Your task to perform on an android device: Show the shopping cart on ebay.com. Search for "usb-b" on ebay.com, select the first entry, add it to the cart, then select checkout. Image 0: 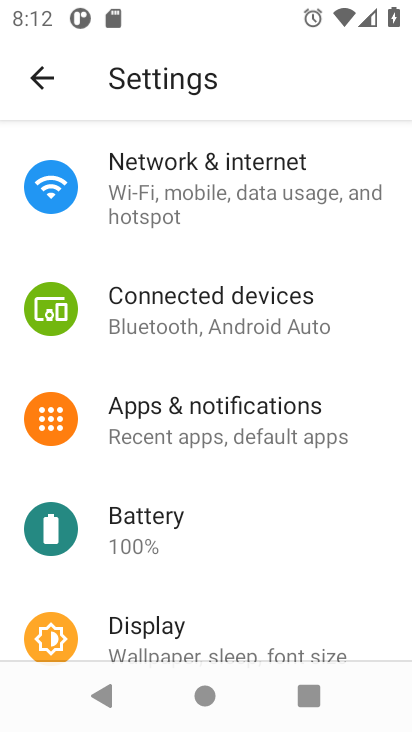
Step 0: press home button
Your task to perform on an android device: Show the shopping cart on ebay.com. Search for "usb-b" on ebay.com, select the first entry, add it to the cart, then select checkout. Image 1: 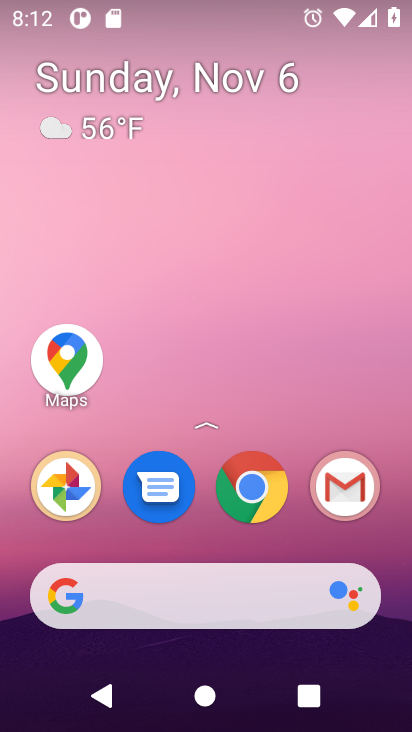
Step 1: click (259, 501)
Your task to perform on an android device: Show the shopping cart on ebay.com. Search for "usb-b" on ebay.com, select the first entry, add it to the cart, then select checkout. Image 2: 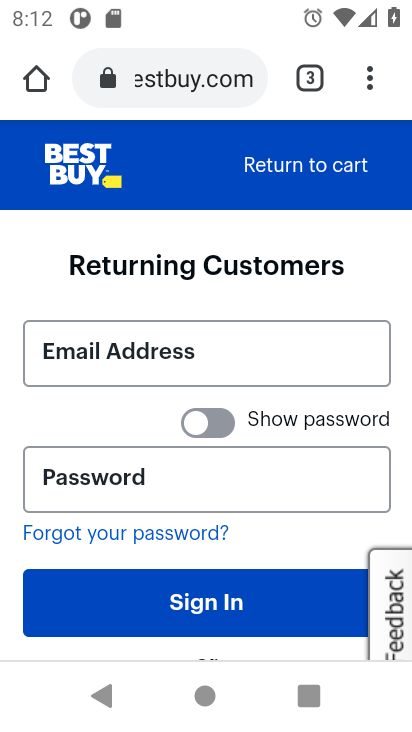
Step 2: click (164, 80)
Your task to perform on an android device: Show the shopping cart on ebay.com. Search for "usb-b" on ebay.com, select the first entry, add it to the cart, then select checkout. Image 3: 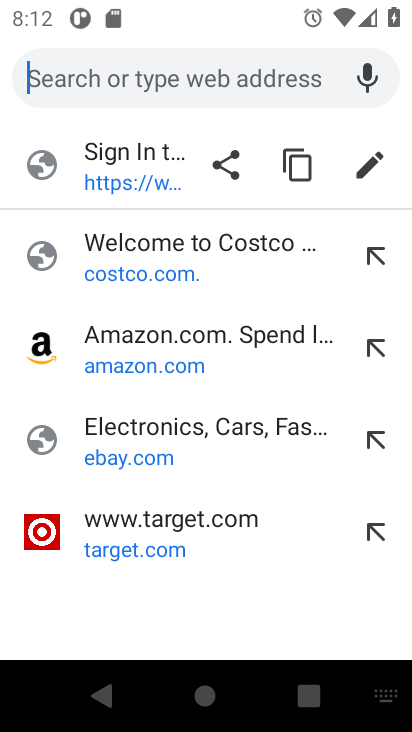
Step 3: click (99, 452)
Your task to perform on an android device: Show the shopping cart on ebay.com. Search for "usb-b" on ebay.com, select the first entry, add it to the cart, then select checkout. Image 4: 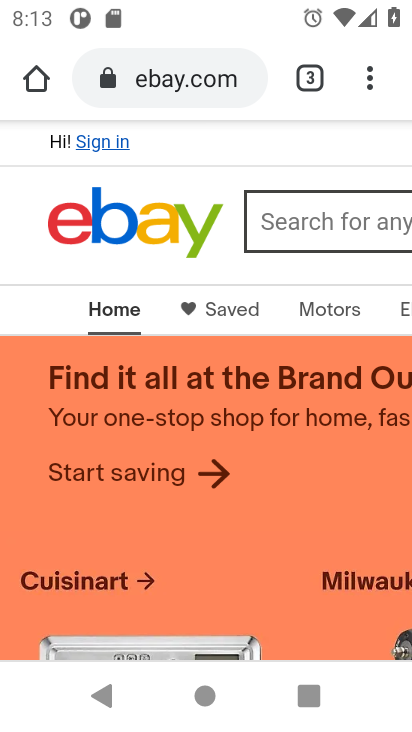
Step 4: click (307, 238)
Your task to perform on an android device: Show the shopping cart on ebay.com. Search for "usb-b" on ebay.com, select the first entry, add it to the cart, then select checkout. Image 5: 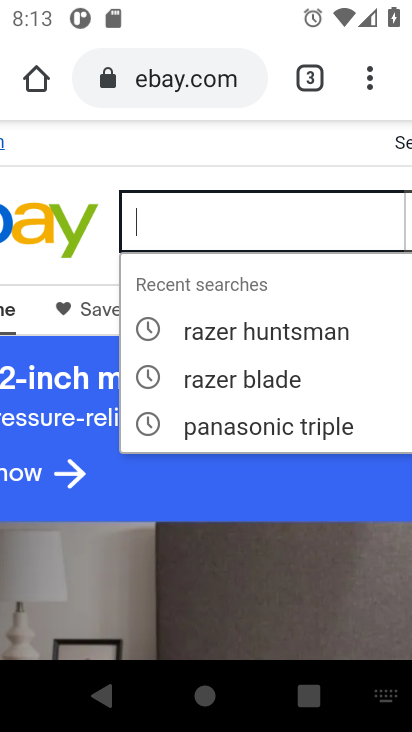
Step 5: click (331, 158)
Your task to perform on an android device: Show the shopping cart on ebay.com. Search for "usb-b" on ebay.com, select the first entry, add it to the cart, then select checkout. Image 6: 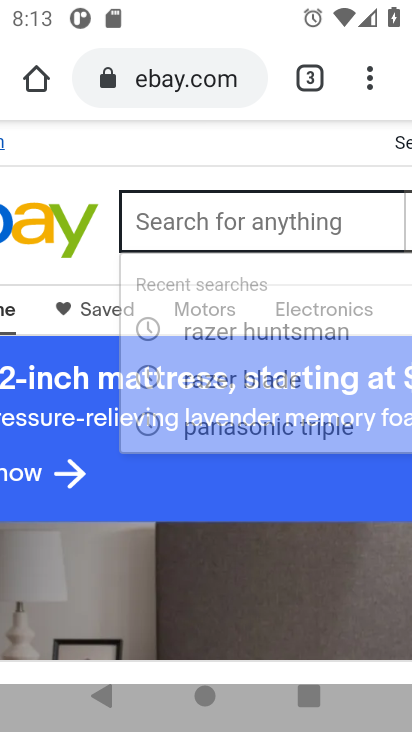
Step 6: drag from (331, 158) to (11, 134)
Your task to perform on an android device: Show the shopping cart on ebay.com. Search for "usb-b" on ebay.com, select the first entry, add it to the cart, then select checkout. Image 7: 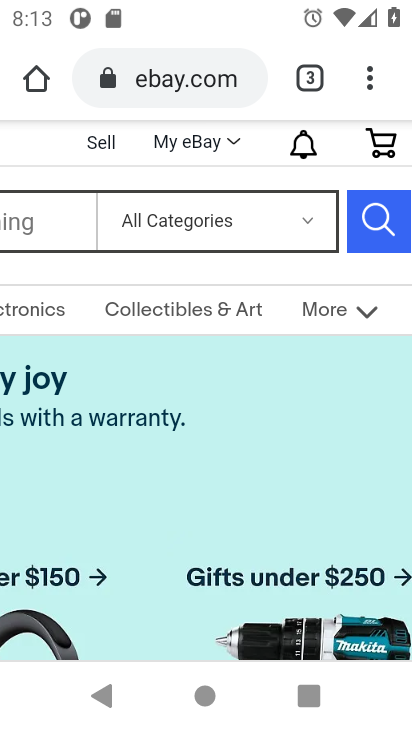
Step 7: click (377, 150)
Your task to perform on an android device: Show the shopping cart on ebay.com. Search for "usb-b" on ebay.com, select the first entry, add it to the cart, then select checkout. Image 8: 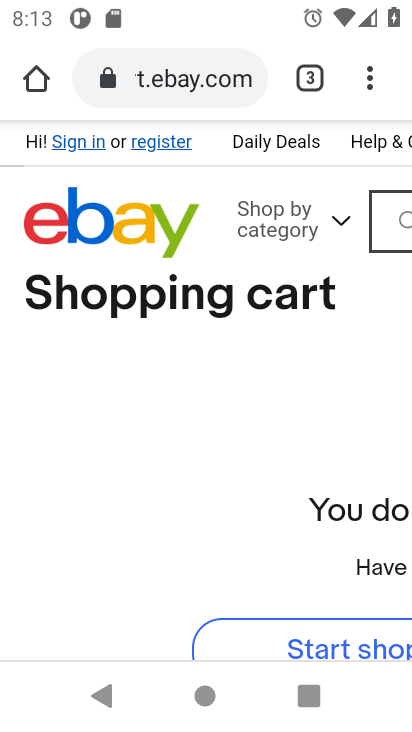
Step 8: drag from (264, 384) to (55, 400)
Your task to perform on an android device: Show the shopping cart on ebay.com. Search for "usb-b" on ebay.com, select the first entry, add it to the cart, then select checkout. Image 9: 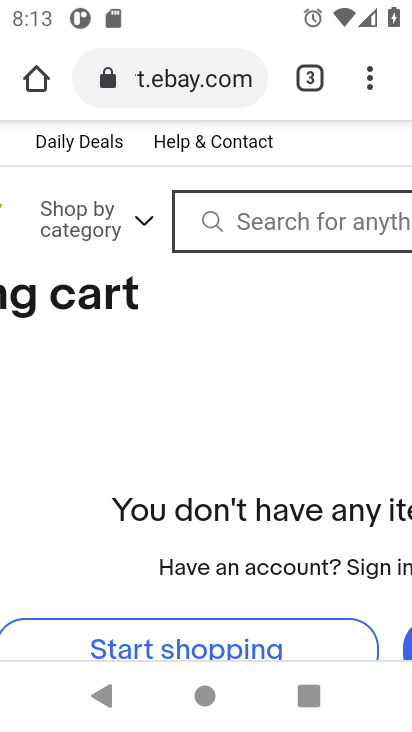
Step 9: drag from (403, 349) to (40, 448)
Your task to perform on an android device: Show the shopping cart on ebay.com. Search for "usb-b" on ebay.com, select the first entry, add it to the cart, then select checkout. Image 10: 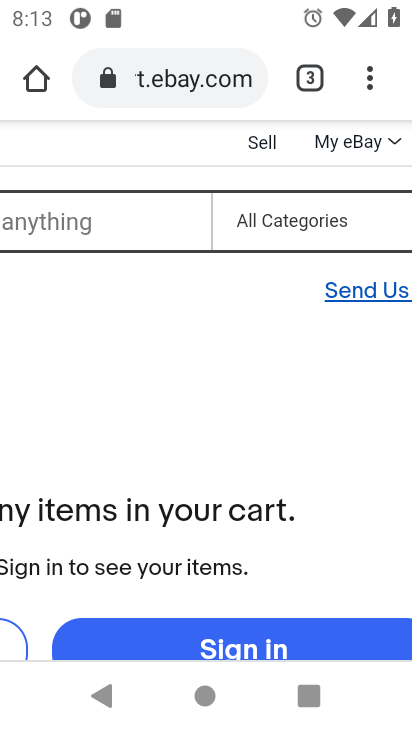
Step 10: click (111, 224)
Your task to perform on an android device: Show the shopping cart on ebay.com. Search for "usb-b" on ebay.com, select the first entry, add it to the cart, then select checkout. Image 11: 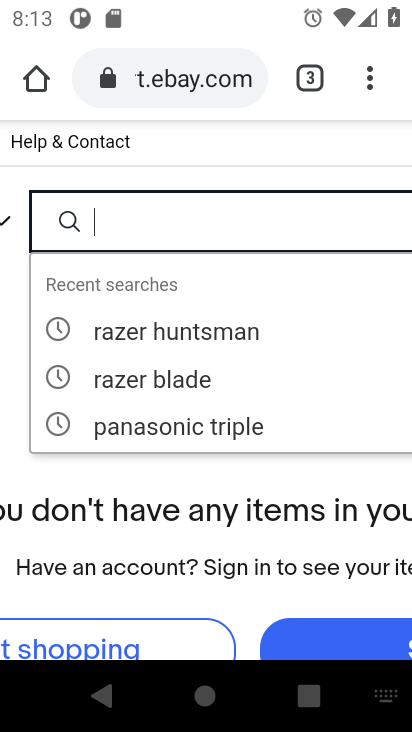
Step 11: type "usb-b"
Your task to perform on an android device: Show the shopping cart on ebay.com. Search for "usb-b" on ebay.com, select the first entry, add it to the cart, then select checkout. Image 12: 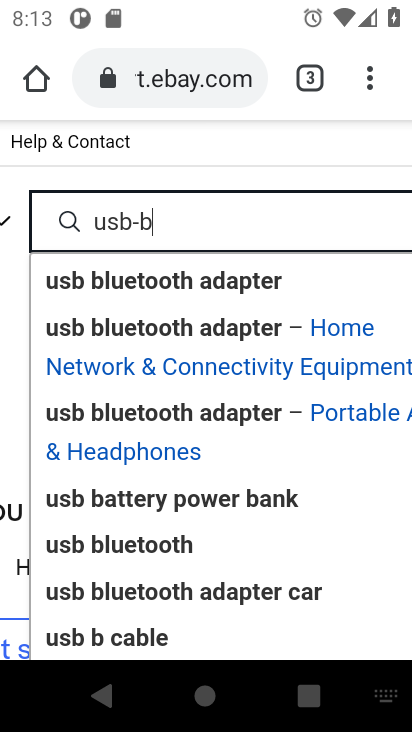
Step 12: drag from (335, 175) to (74, 195)
Your task to perform on an android device: Show the shopping cart on ebay.com. Search for "usb-b" on ebay.com, select the first entry, add it to the cart, then select checkout. Image 13: 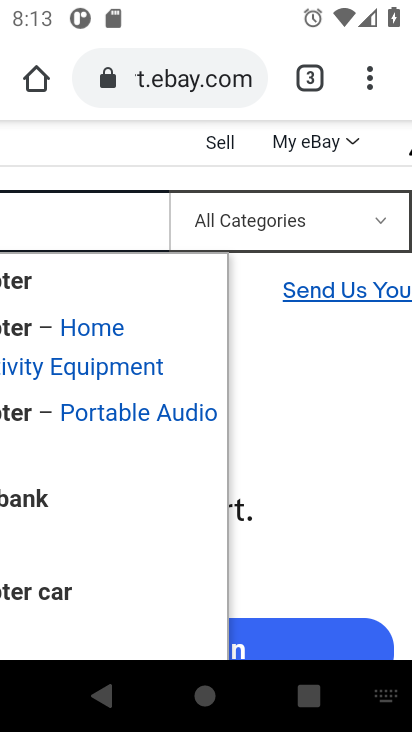
Step 13: click (388, 217)
Your task to perform on an android device: Show the shopping cart on ebay.com. Search for "usb-b" on ebay.com, select the first entry, add it to the cart, then select checkout. Image 14: 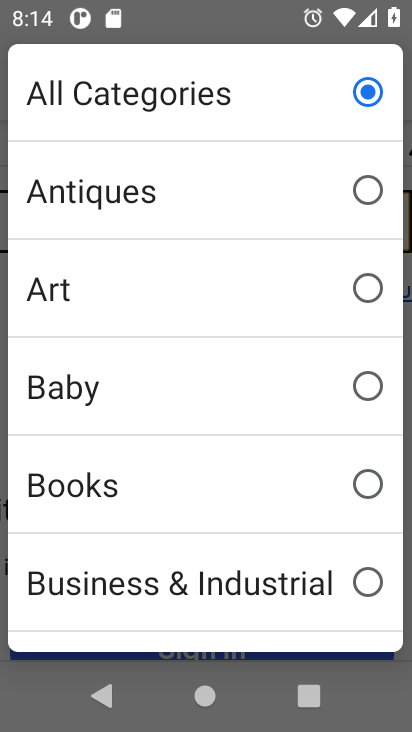
Step 14: click (175, 13)
Your task to perform on an android device: Show the shopping cart on ebay.com. Search for "usb-b" on ebay.com, select the first entry, add it to the cart, then select checkout. Image 15: 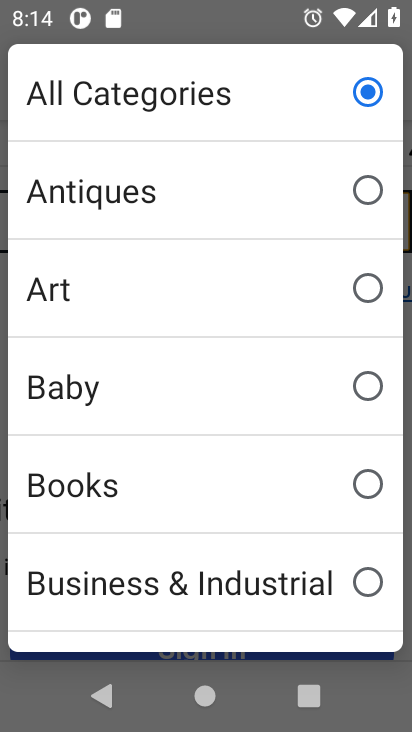
Step 15: click (247, 37)
Your task to perform on an android device: Show the shopping cart on ebay.com. Search for "usb-b" on ebay.com, select the first entry, add it to the cart, then select checkout. Image 16: 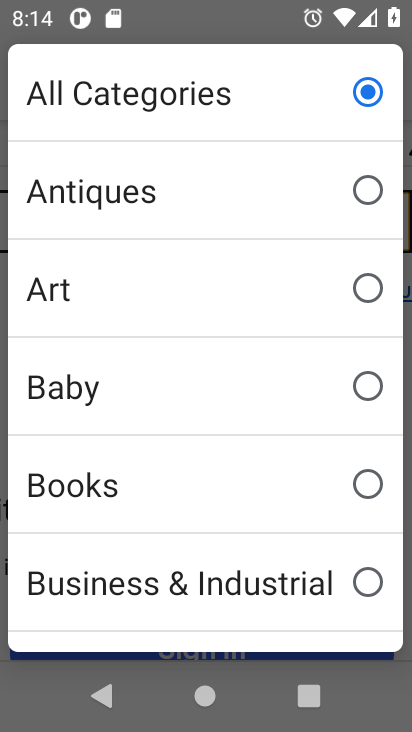
Step 16: press back button
Your task to perform on an android device: Show the shopping cart on ebay.com. Search for "usb-b" on ebay.com, select the first entry, add it to the cart, then select checkout. Image 17: 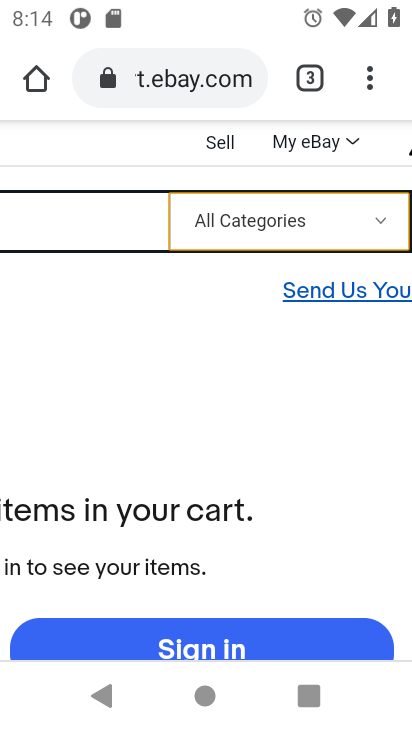
Step 17: drag from (290, 398) to (58, 403)
Your task to perform on an android device: Show the shopping cart on ebay.com. Search for "usb-b" on ebay.com, select the first entry, add it to the cart, then select checkout. Image 18: 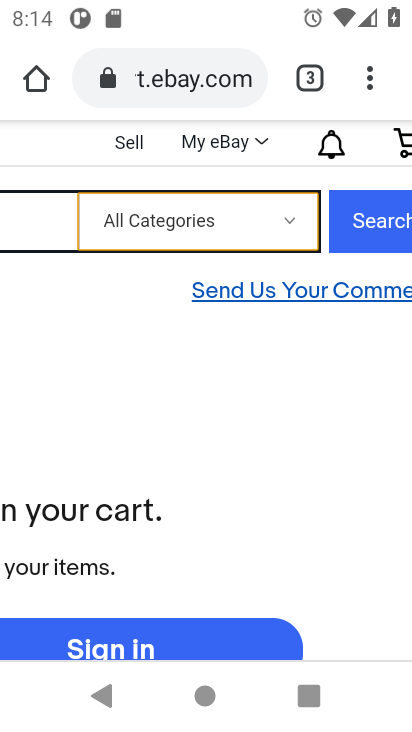
Step 18: click (365, 238)
Your task to perform on an android device: Show the shopping cart on ebay.com. Search for "usb-b" on ebay.com, select the first entry, add it to the cart, then select checkout. Image 19: 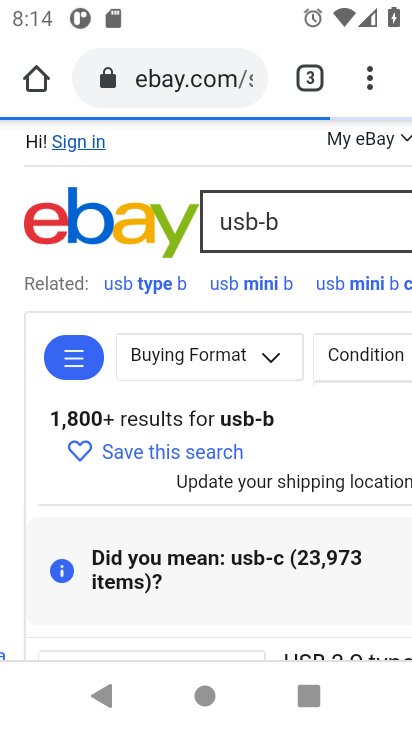
Step 19: drag from (218, 597) to (235, 111)
Your task to perform on an android device: Show the shopping cart on ebay.com. Search for "usb-b" on ebay.com, select the first entry, add it to the cart, then select checkout. Image 20: 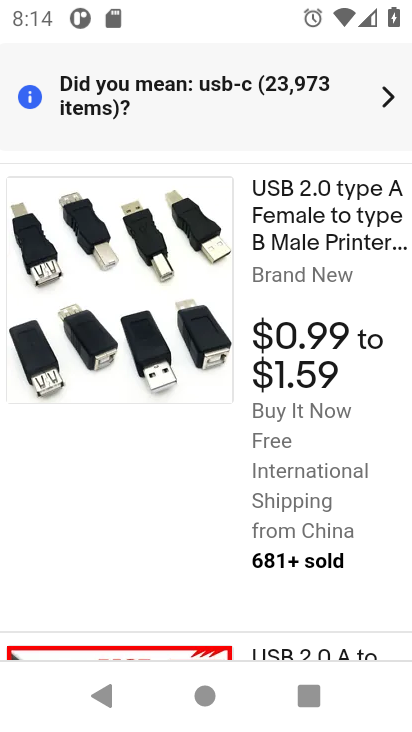
Step 20: drag from (389, 356) to (101, 208)
Your task to perform on an android device: Show the shopping cart on ebay.com. Search for "usb-b" on ebay.com, select the first entry, add it to the cart, then select checkout. Image 21: 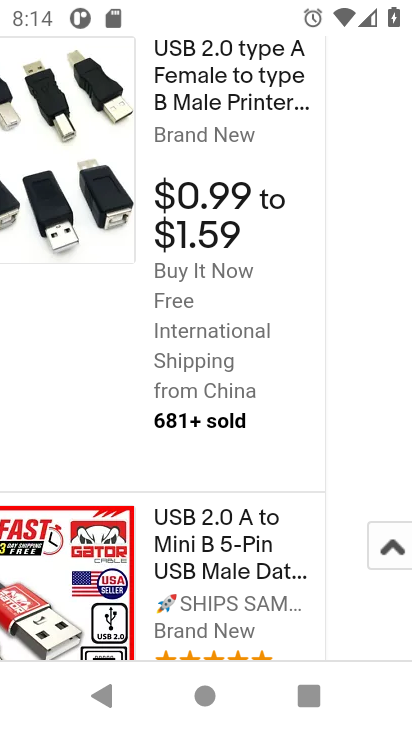
Step 21: click (205, 68)
Your task to perform on an android device: Show the shopping cart on ebay.com. Search for "usb-b" on ebay.com, select the first entry, add it to the cart, then select checkout. Image 22: 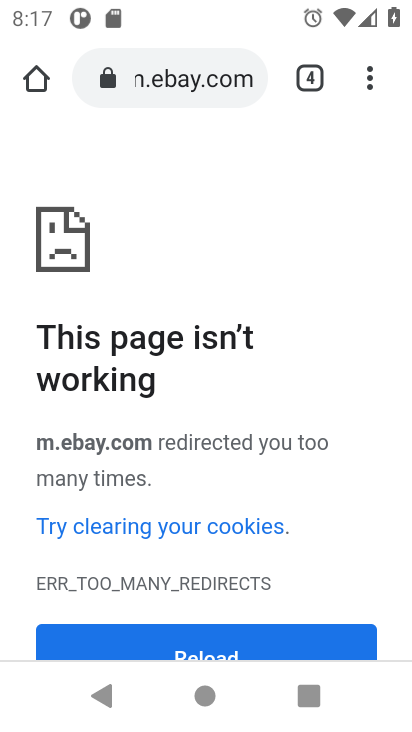
Step 22: task complete